Your task to perform on an android device: change the clock display to analog Image 0: 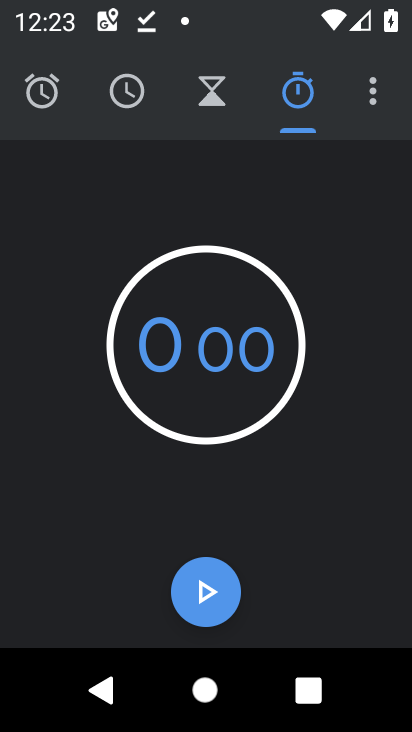
Step 0: click (366, 95)
Your task to perform on an android device: change the clock display to analog Image 1: 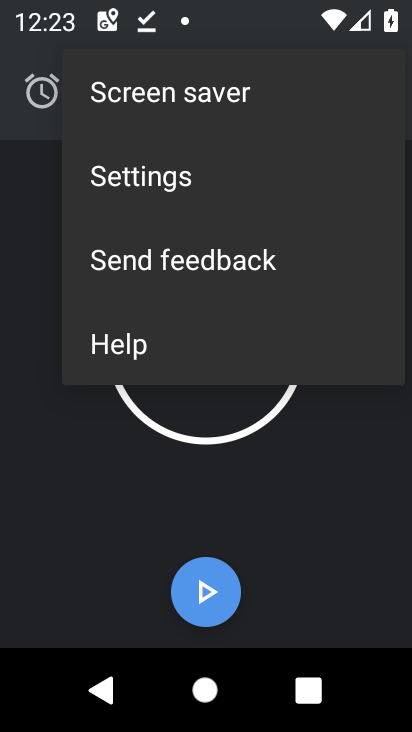
Step 1: click (161, 170)
Your task to perform on an android device: change the clock display to analog Image 2: 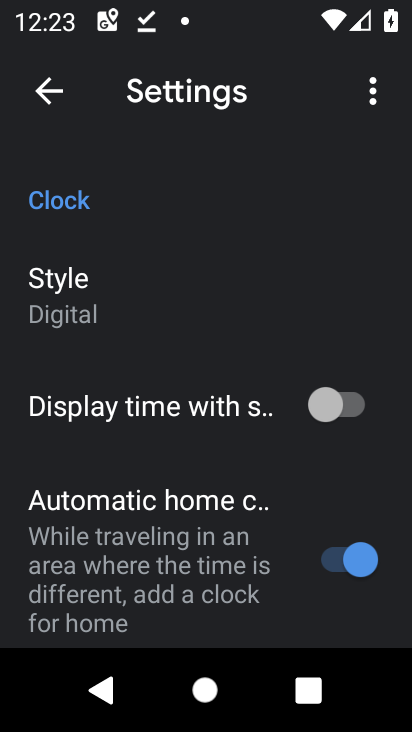
Step 2: click (70, 258)
Your task to perform on an android device: change the clock display to analog Image 3: 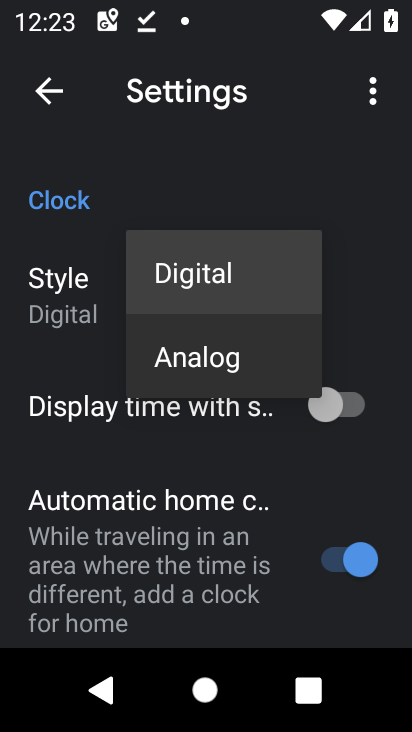
Step 3: click (174, 352)
Your task to perform on an android device: change the clock display to analog Image 4: 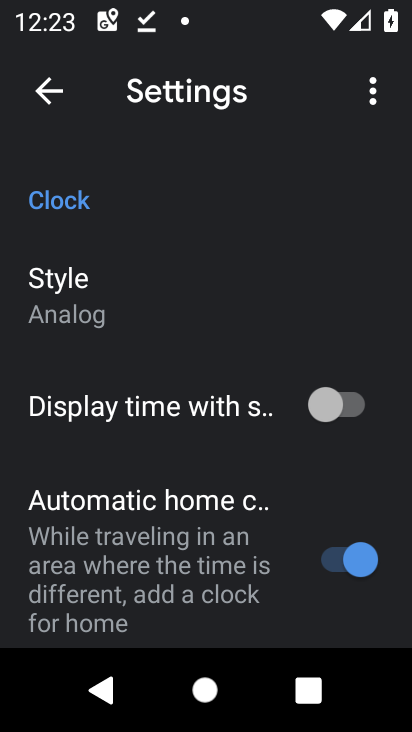
Step 4: task complete